Your task to perform on an android device: Open ESPN.com Image 0: 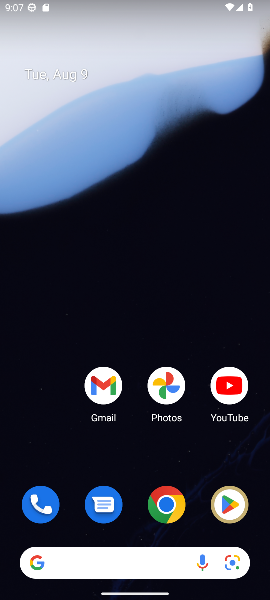
Step 0: click (165, 504)
Your task to perform on an android device: Open ESPN.com Image 1: 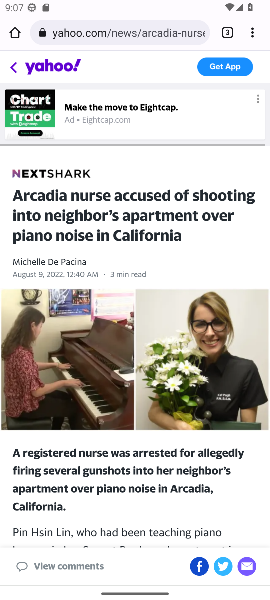
Step 1: click (244, 28)
Your task to perform on an android device: Open ESPN.com Image 2: 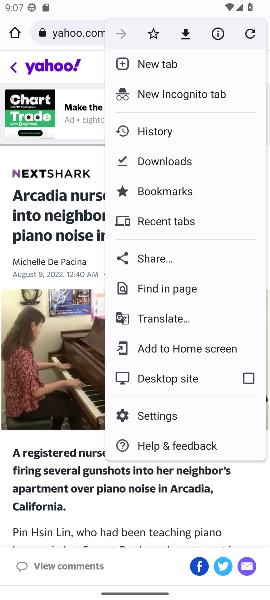
Step 2: click (156, 61)
Your task to perform on an android device: Open ESPN.com Image 3: 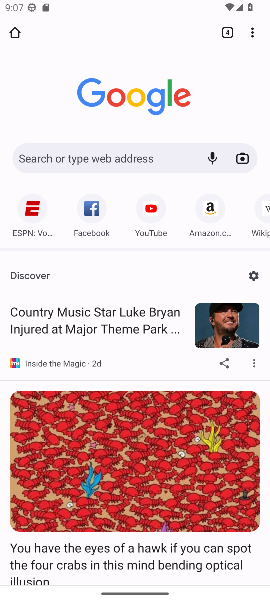
Step 3: click (33, 206)
Your task to perform on an android device: Open ESPN.com Image 4: 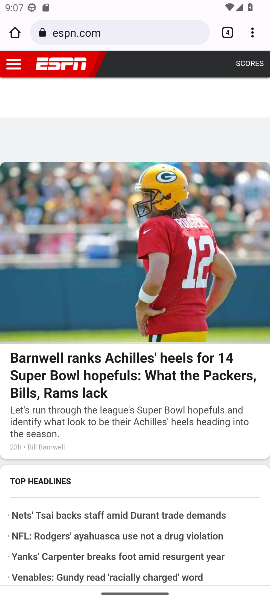
Step 4: task complete